Your task to perform on an android device: turn on airplane mode Image 0: 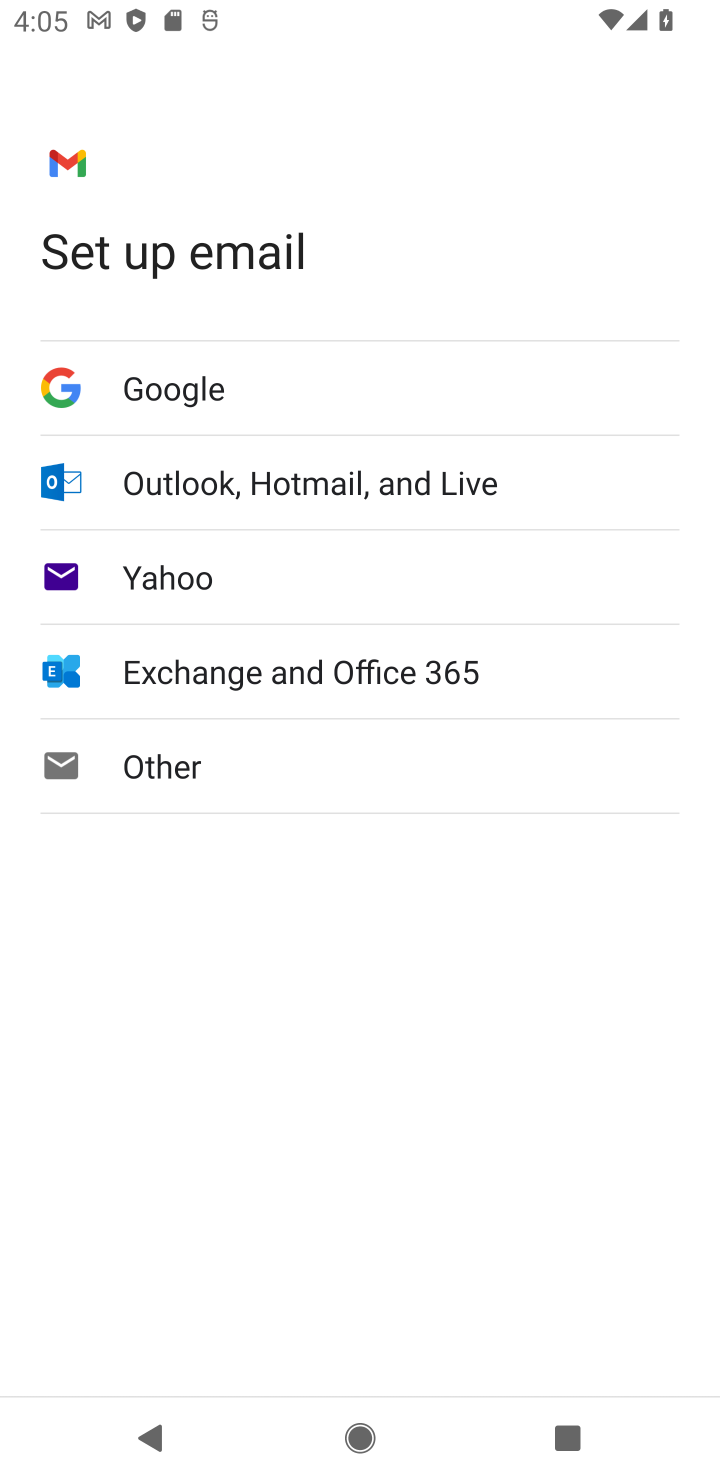
Step 0: press home button
Your task to perform on an android device: turn on airplane mode Image 1: 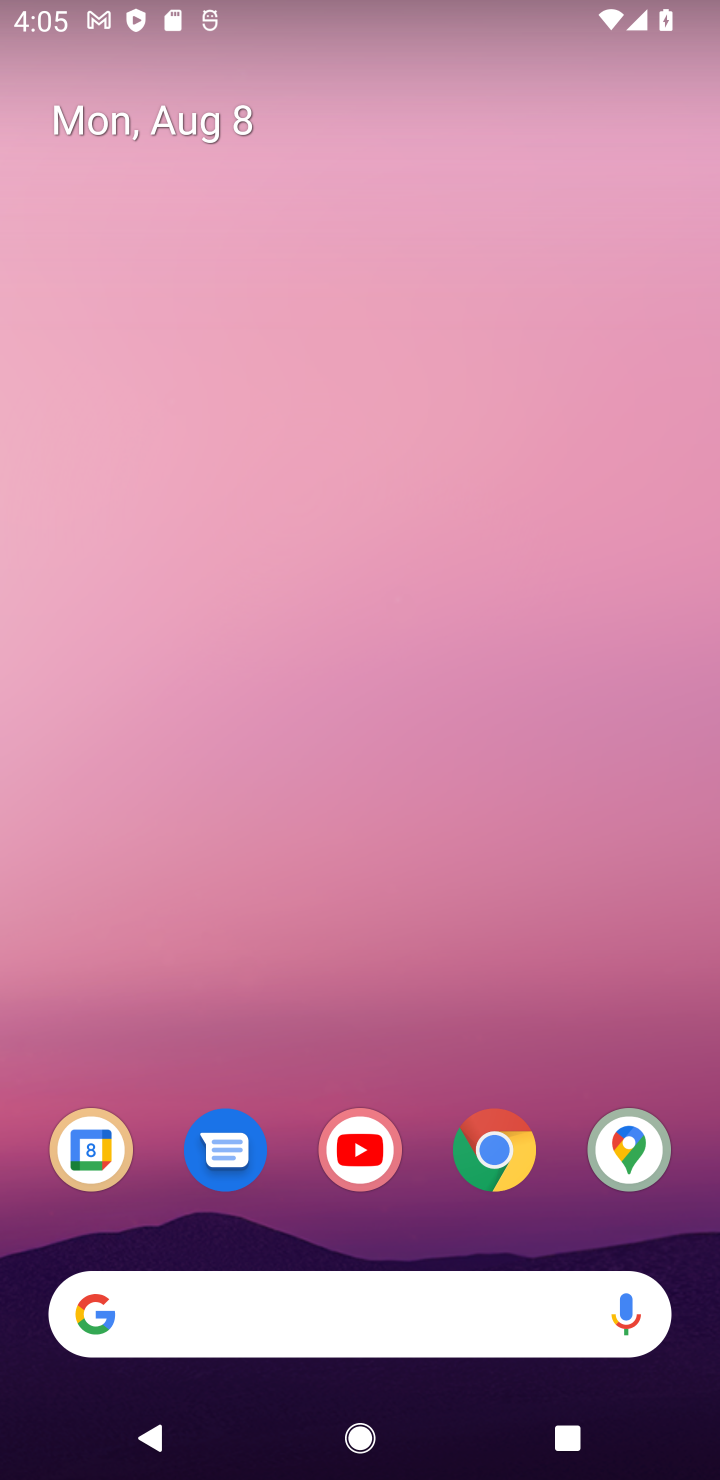
Step 1: drag from (439, 1250) to (398, 94)
Your task to perform on an android device: turn on airplane mode Image 2: 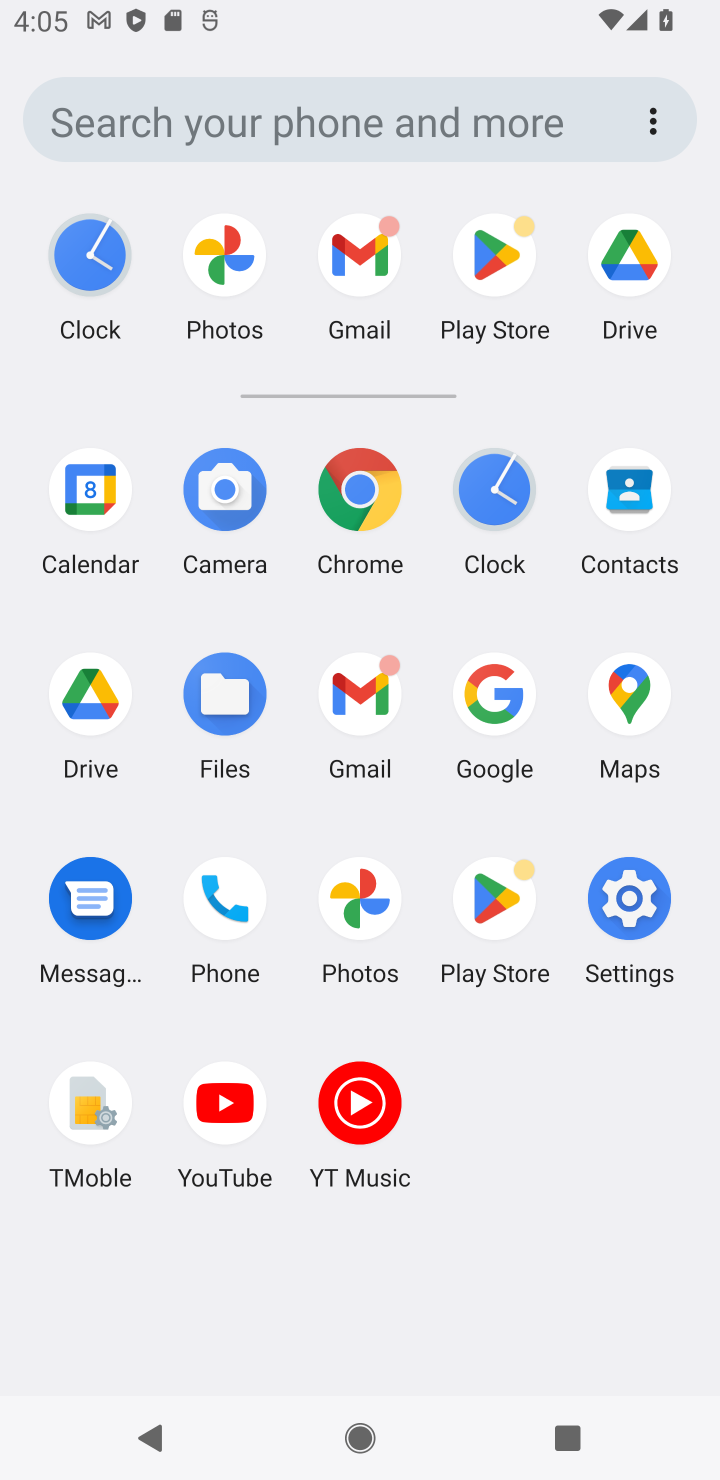
Step 2: click (664, 878)
Your task to perform on an android device: turn on airplane mode Image 3: 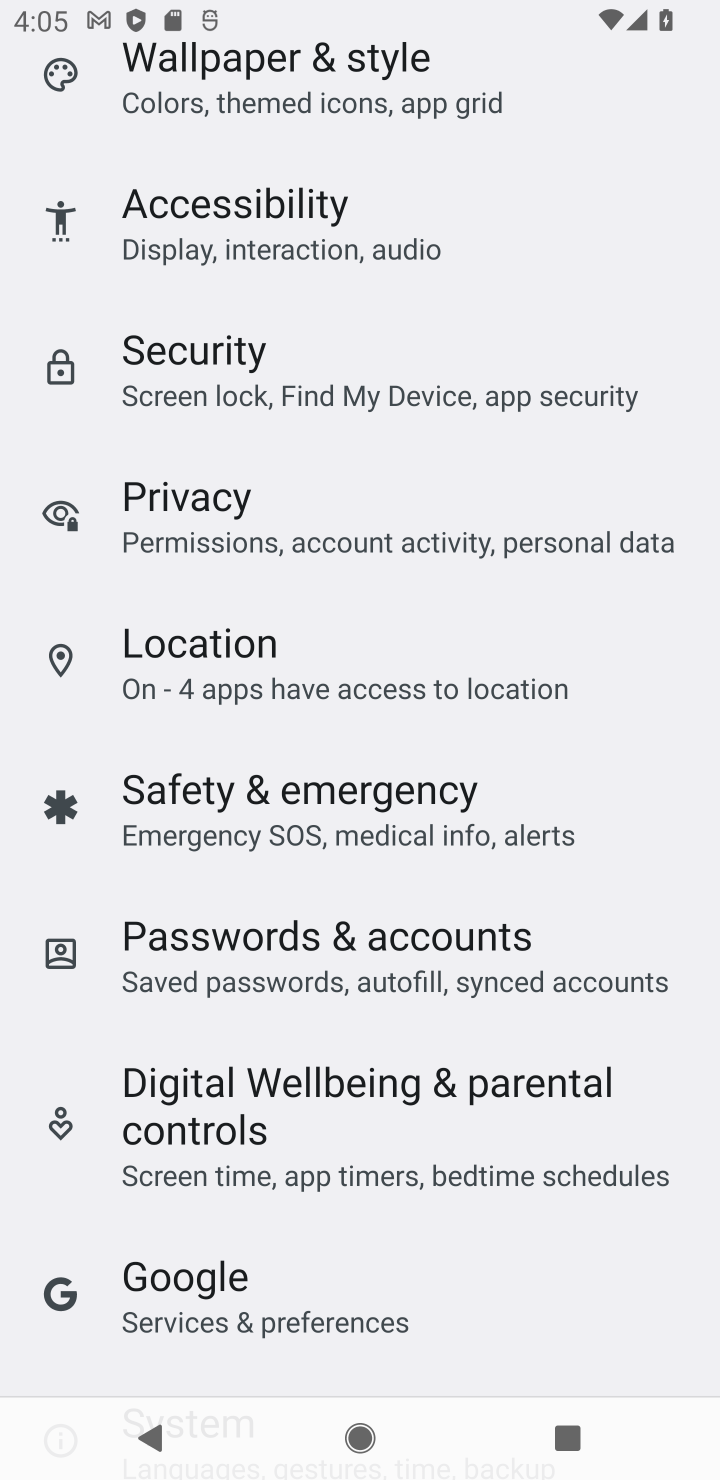
Step 3: drag from (356, 248) to (369, 1241)
Your task to perform on an android device: turn on airplane mode Image 4: 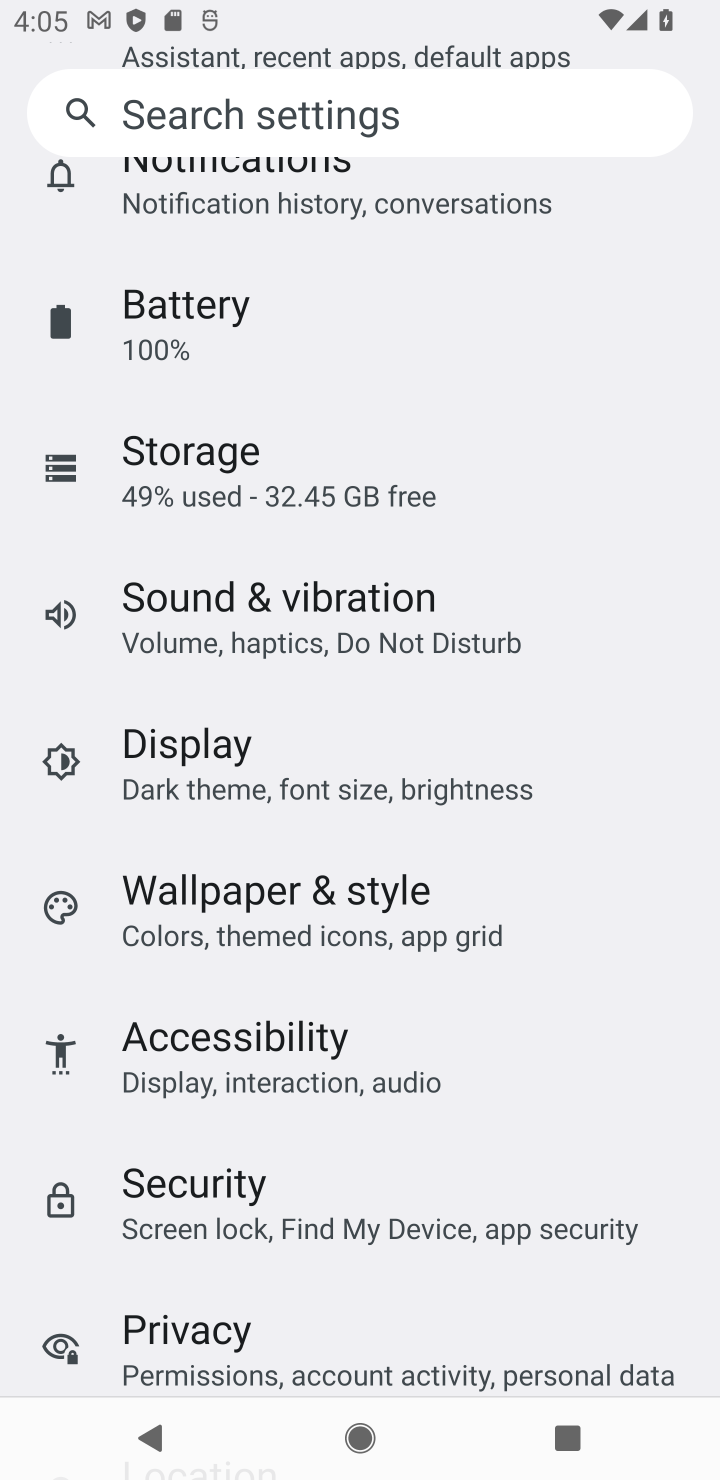
Step 4: drag from (382, 297) to (54, 1433)
Your task to perform on an android device: turn on airplane mode Image 5: 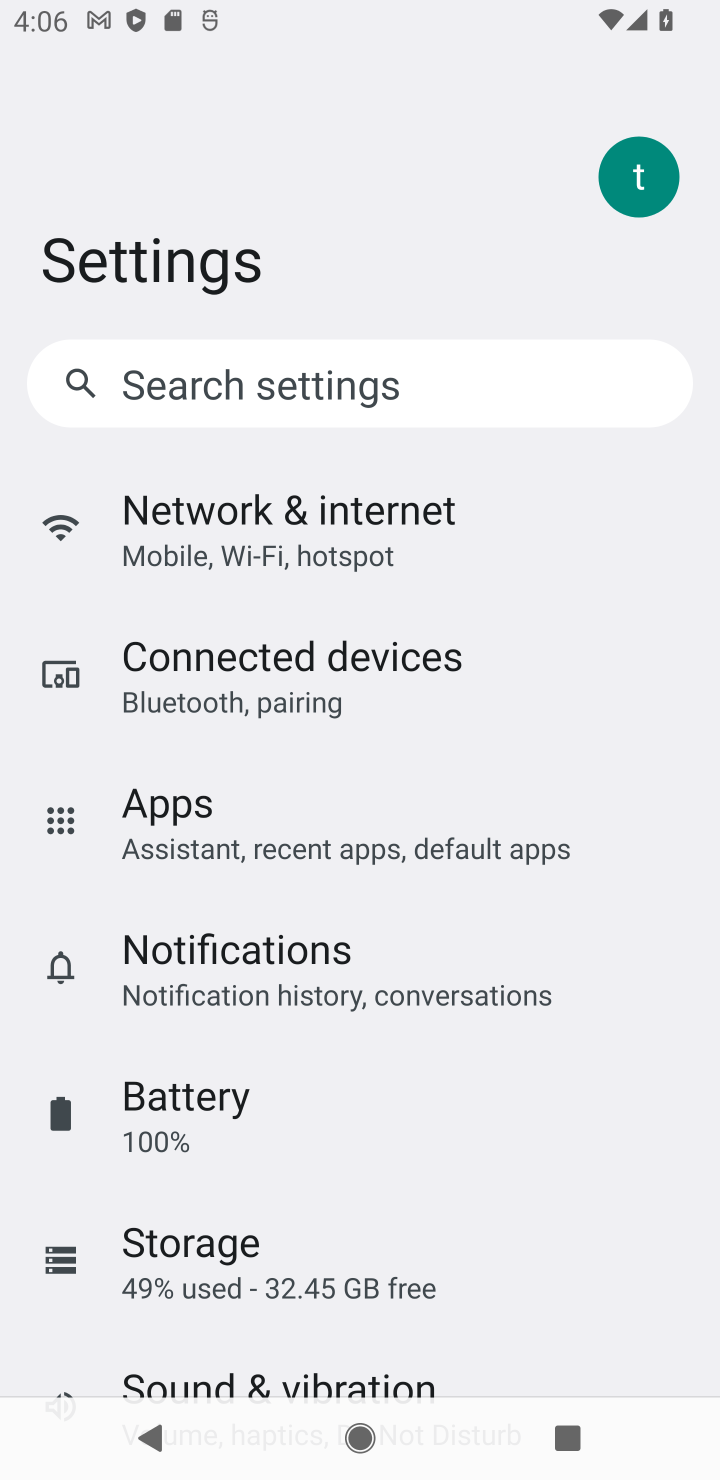
Step 5: click (360, 511)
Your task to perform on an android device: turn on airplane mode Image 6: 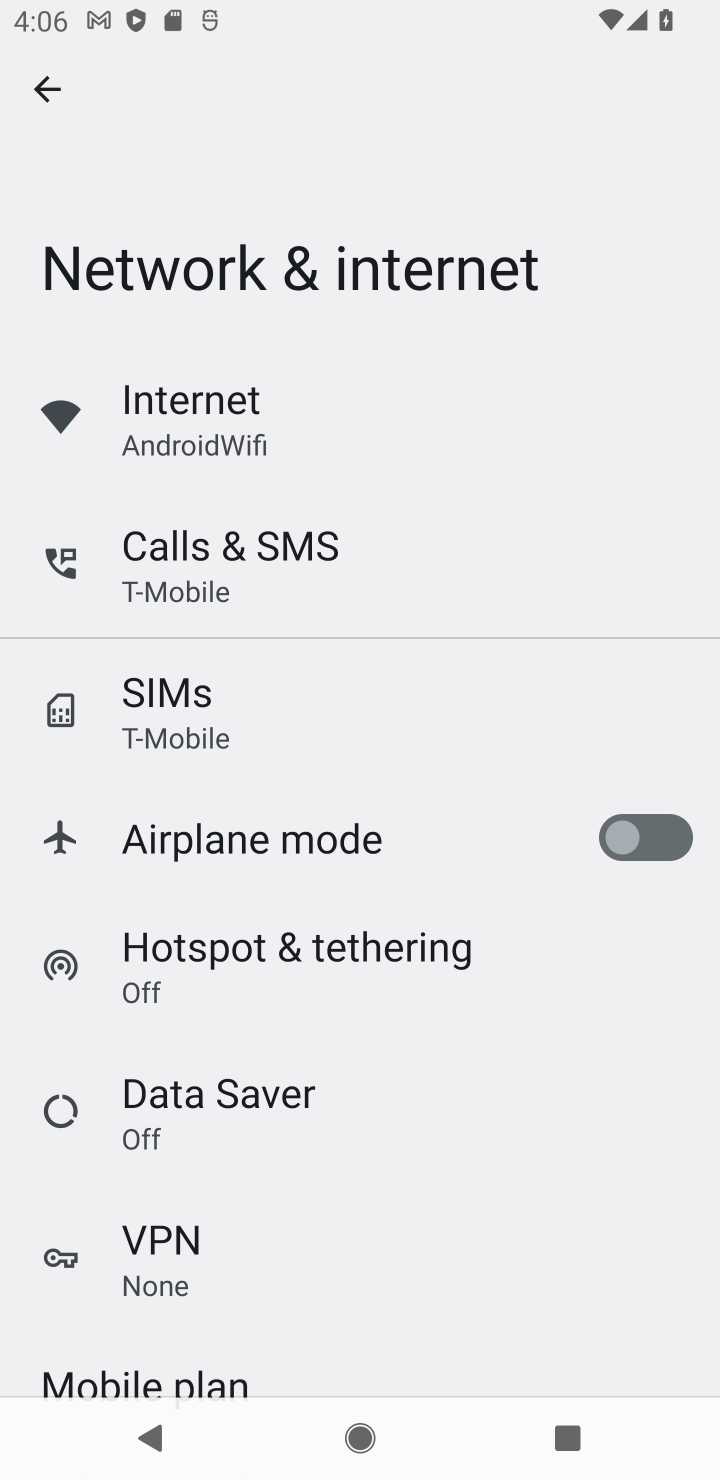
Step 6: task complete